Your task to perform on an android device: open a bookmark in the chrome app Image 0: 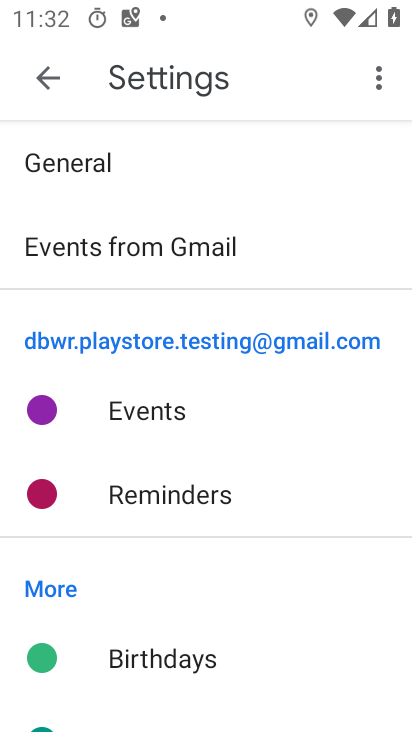
Step 0: press home button
Your task to perform on an android device: open a bookmark in the chrome app Image 1: 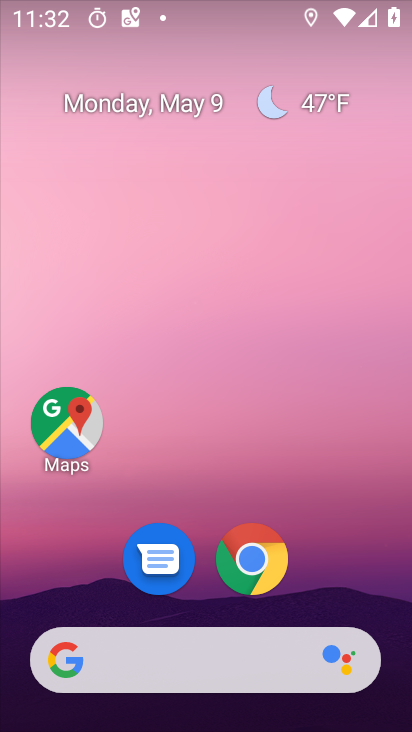
Step 1: click (254, 587)
Your task to perform on an android device: open a bookmark in the chrome app Image 2: 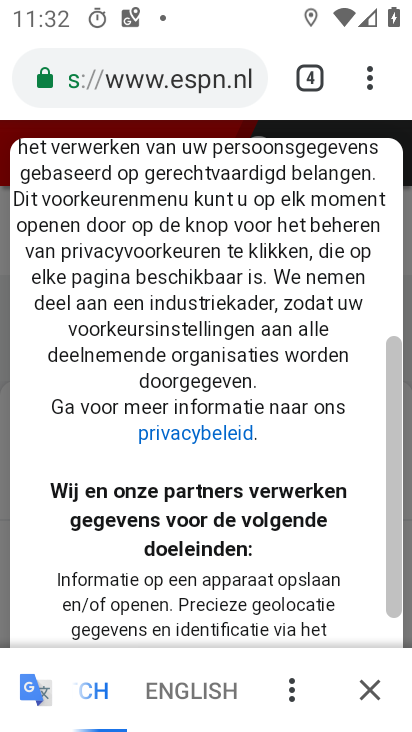
Step 2: task complete